Your task to perform on an android device: install app "Firefox Browser" Image 0: 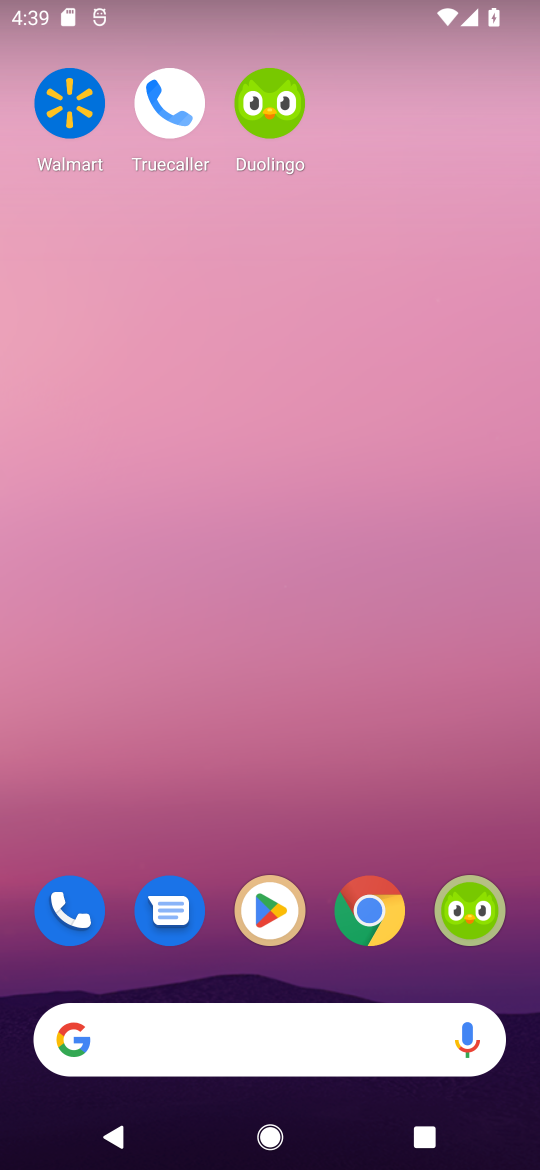
Step 0: drag from (274, 1011) to (289, 230)
Your task to perform on an android device: install app "Firefox Browser" Image 1: 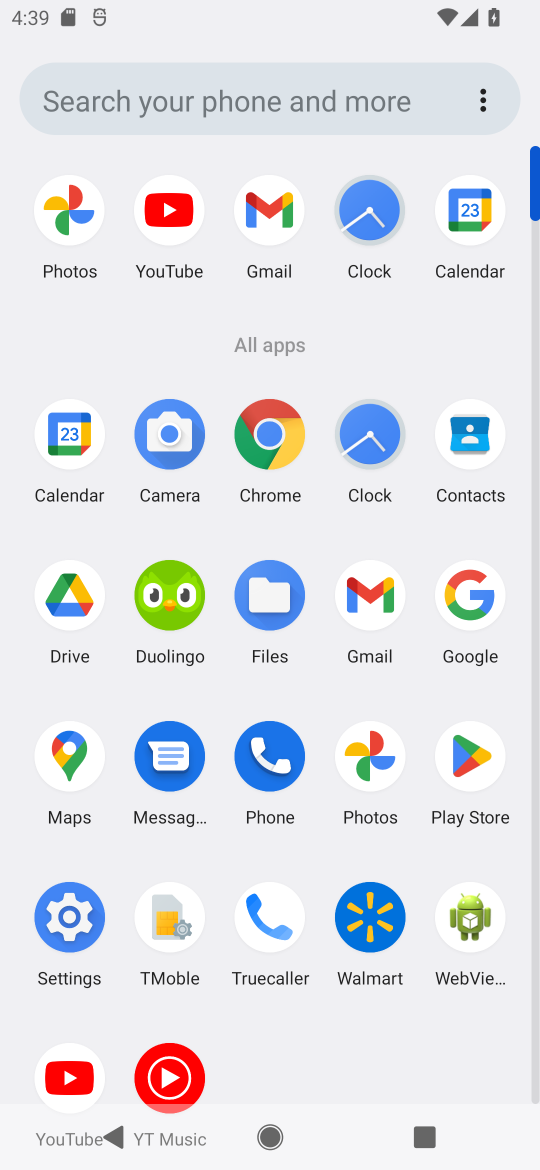
Step 1: click (463, 771)
Your task to perform on an android device: install app "Firefox Browser" Image 2: 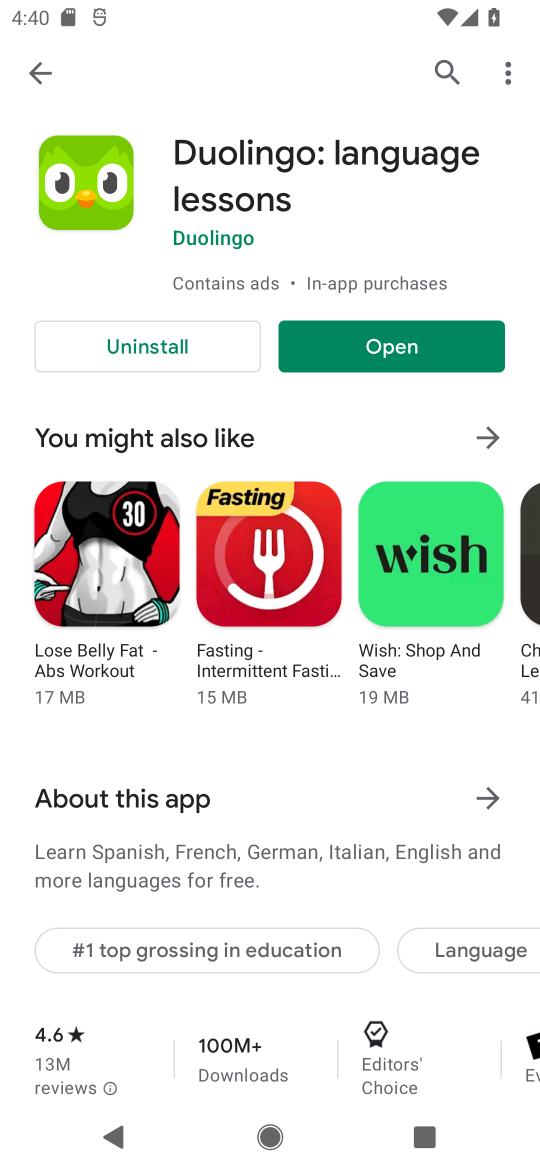
Step 2: click (430, 66)
Your task to perform on an android device: install app "Firefox Browser" Image 3: 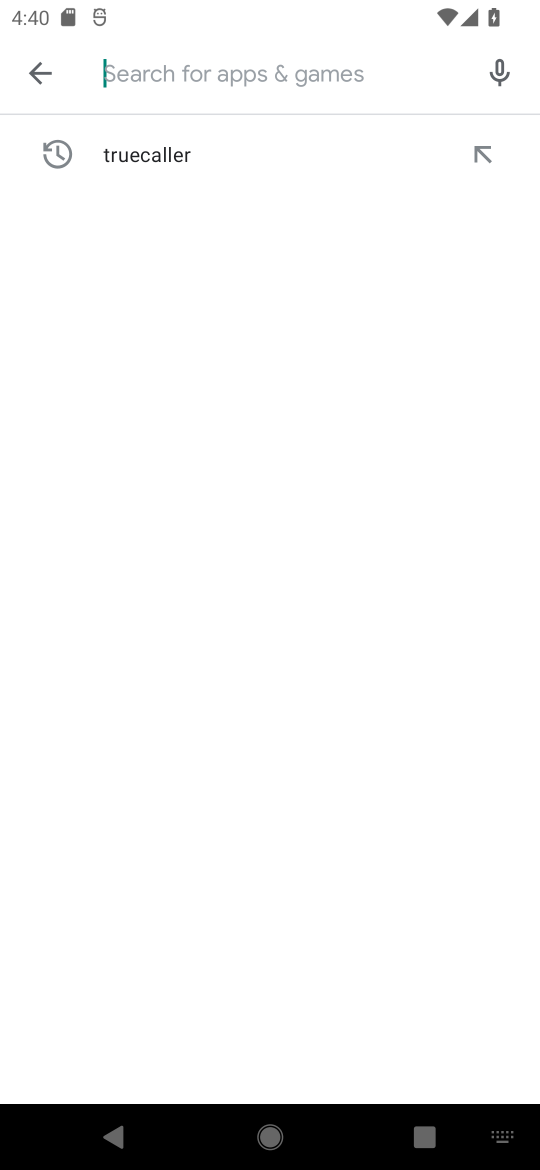
Step 3: type "Firefox Browser"
Your task to perform on an android device: install app "Firefox Browser" Image 4: 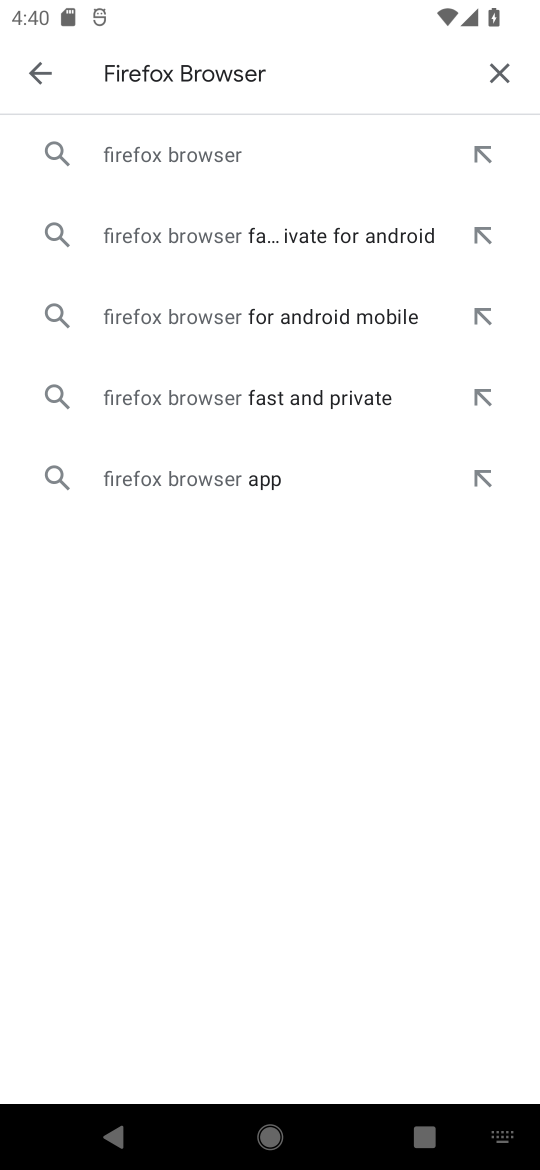
Step 4: click (197, 156)
Your task to perform on an android device: install app "Firefox Browser" Image 5: 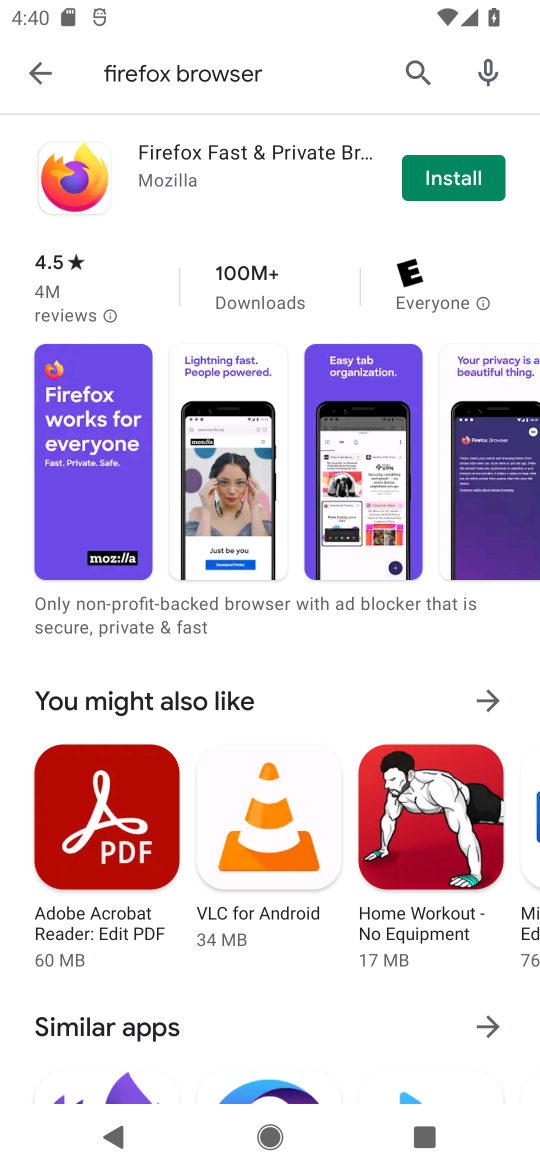
Step 5: click (455, 177)
Your task to perform on an android device: install app "Firefox Browser" Image 6: 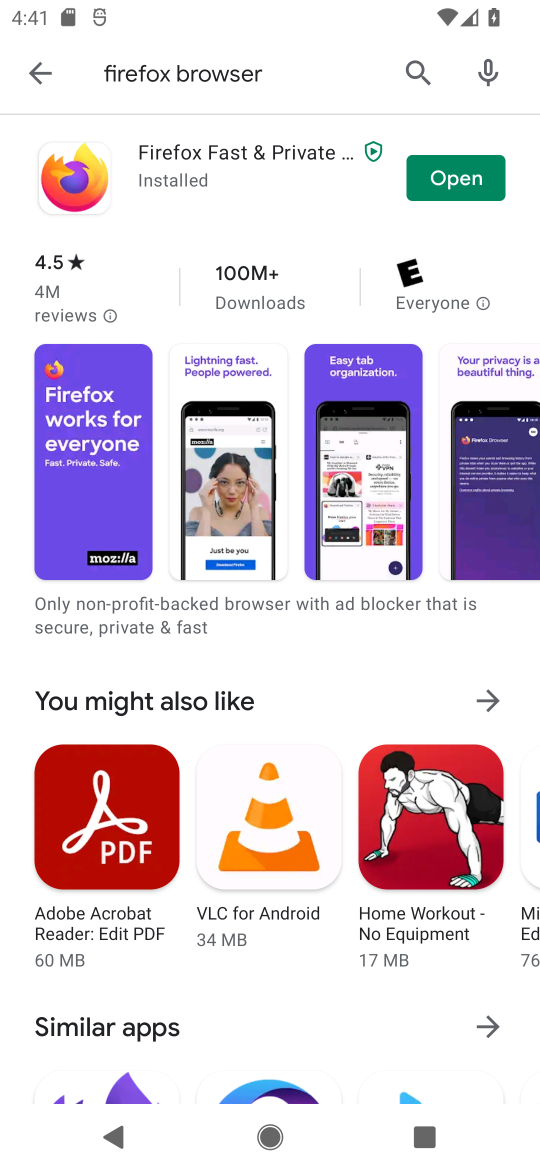
Step 6: click (439, 171)
Your task to perform on an android device: install app "Firefox Browser" Image 7: 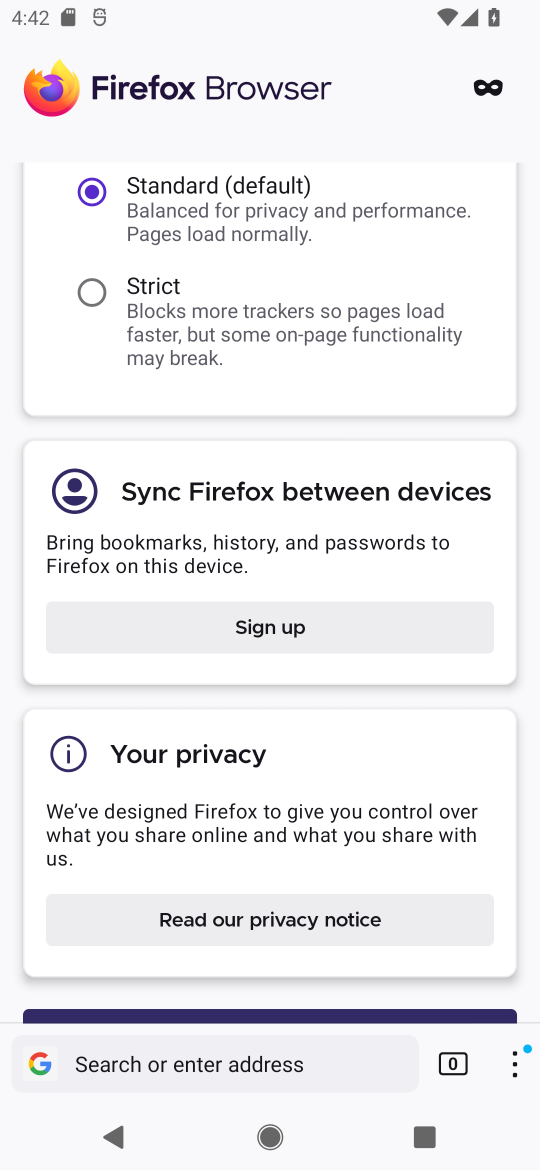
Step 7: task complete